Your task to perform on an android device: turn on notifications settings in the gmail app Image 0: 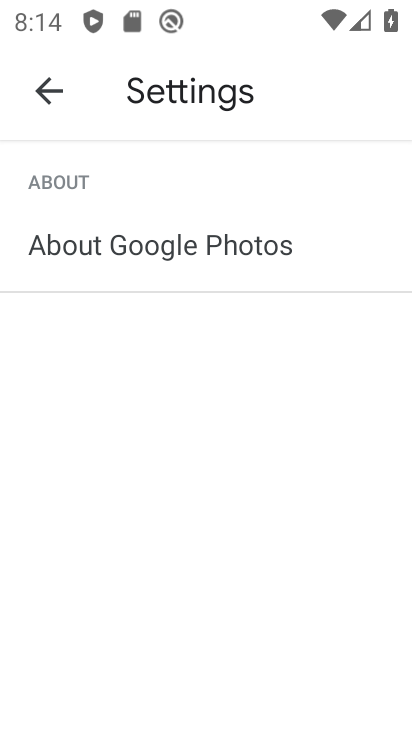
Step 0: press home button
Your task to perform on an android device: turn on notifications settings in the gmail app Image 1: 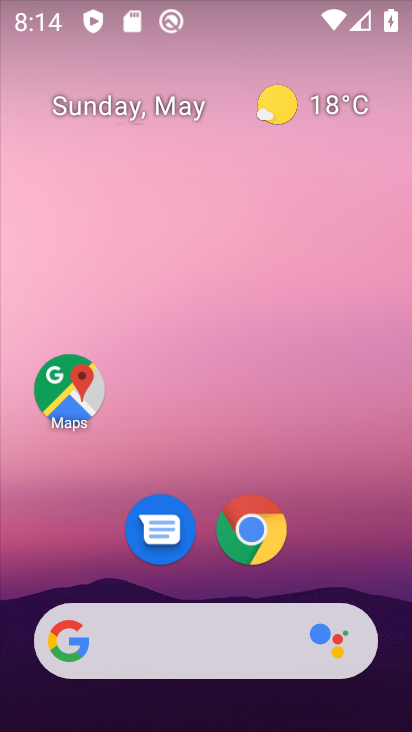
Step 1: drag from (370, 605) to (361, 21)
Your task to perform on an android device: turn on notifications settings in the gmail app Image 2: 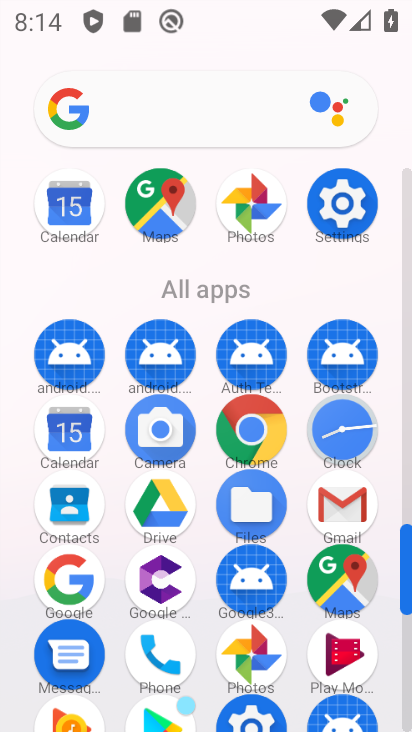
Step 2: click (343, 506)
Your task to perform on an android device: turn on notifications settings in the gmail app Image 3: 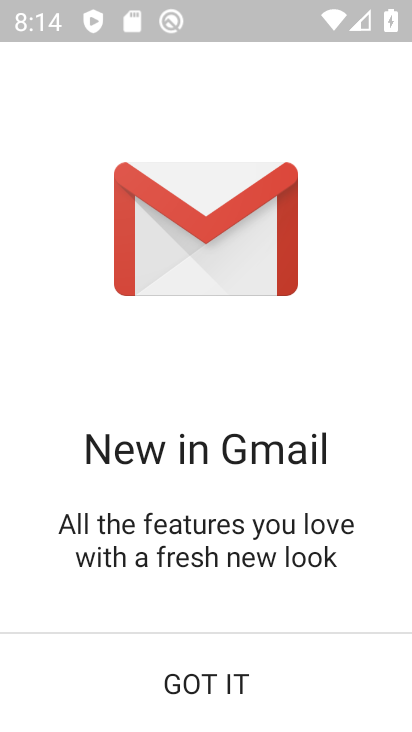
Step 3: click (199, 689)
Your task to perform on an android device: turn on notifications settings in the gmail app Image 4: 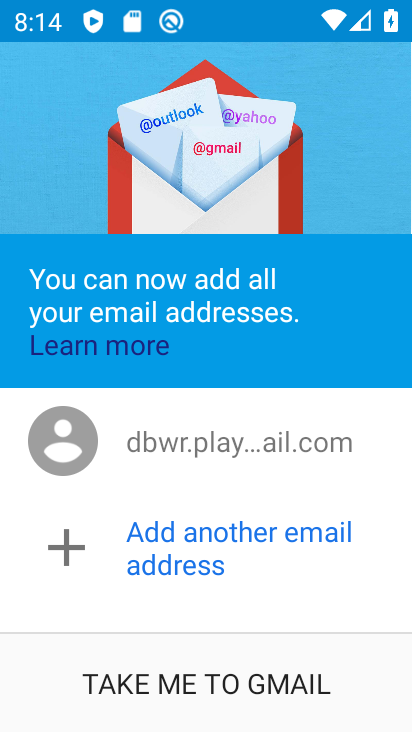
Step 4: click (201, 688)
Your task to perform on an android device: turn on notifications settings in the gmail app Image 5: 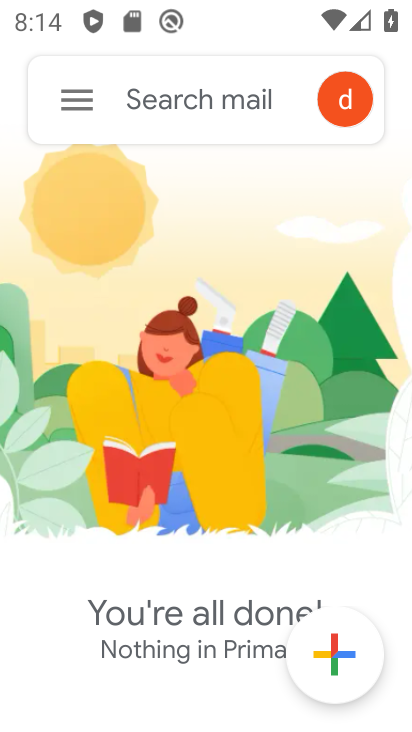
Step 5: click (73, 102)
Your task to perform on an android device: turn on notifications settings in the gmail app Image 6: 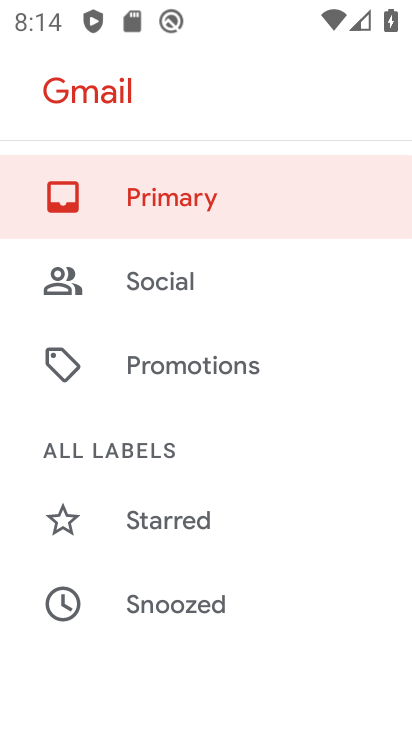
Step 6: drag from (262, 569) to (273, 165)
Your task to perform on an android device: turn on notifications settings in the gmail app Image 7: 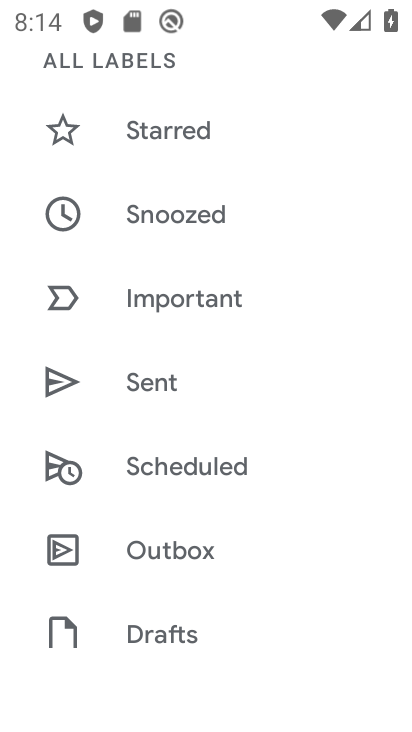
Step 7: drag from (236, 521) to (237, 184)
Your task to perform on an android device: turn on notifications settings in the gmail app Image 8: 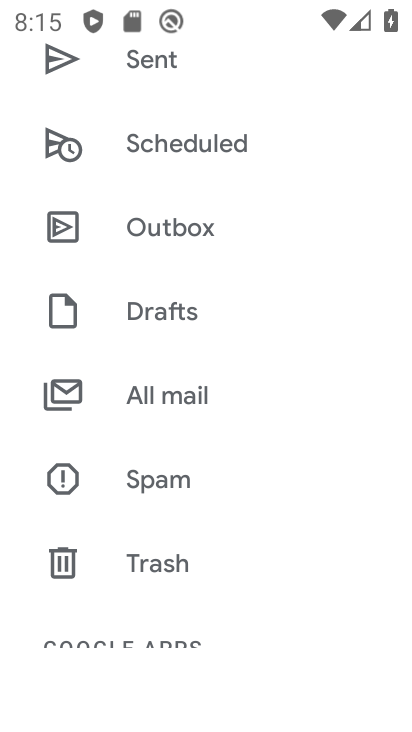
Step 8: drag from (196, 524) to (203, 141)
Your task to perform on an android device: turn on notifications settings in the gmail app Image 9: 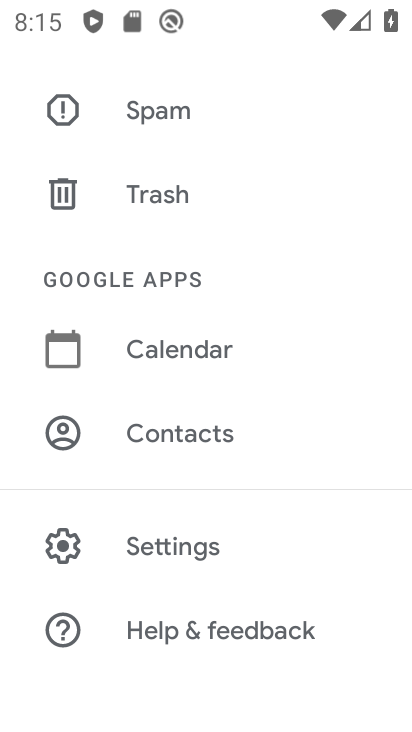
Step 9: click (168, 545)
Your task to perform on an android device: turn on notifications settings in the gmail app Image 10: 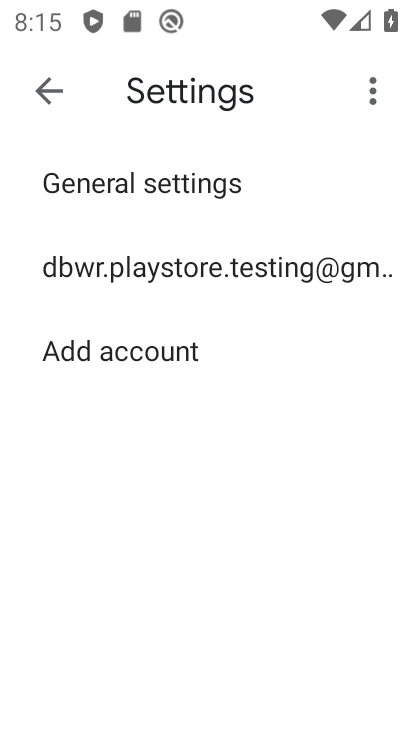
Step 10: click (99, 184)
Your task to perform on an android device: turn on notifications settings in the gmail app Image 11: 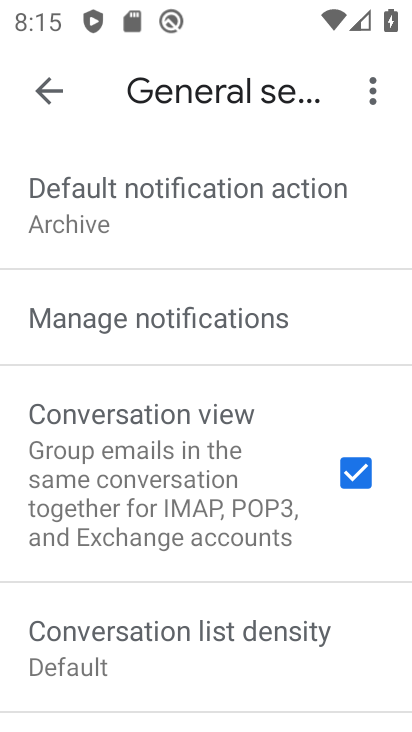
Step 11: click (105, 307)
Your task to perform on an android device: turn on notifications settings in the gmail app Image 12: 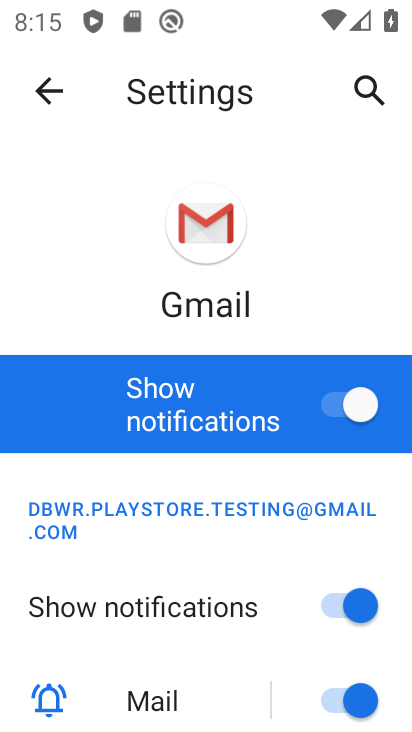
Step 12: task complete